Your task to perform on an android device: Open Google Image 0: 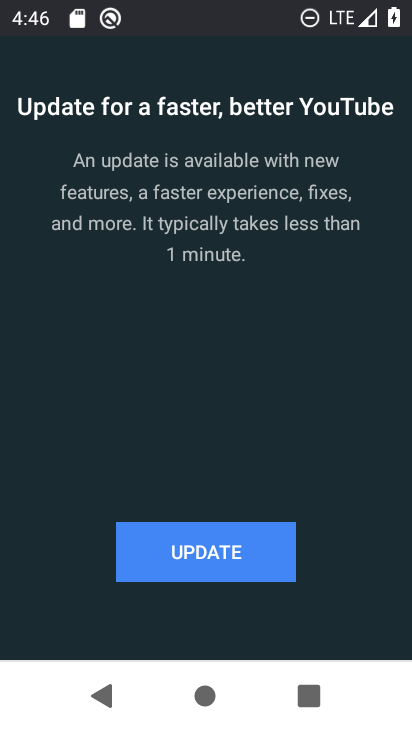
Step 0: press home button
Your task to perform on an android device: Open Google Image 1: 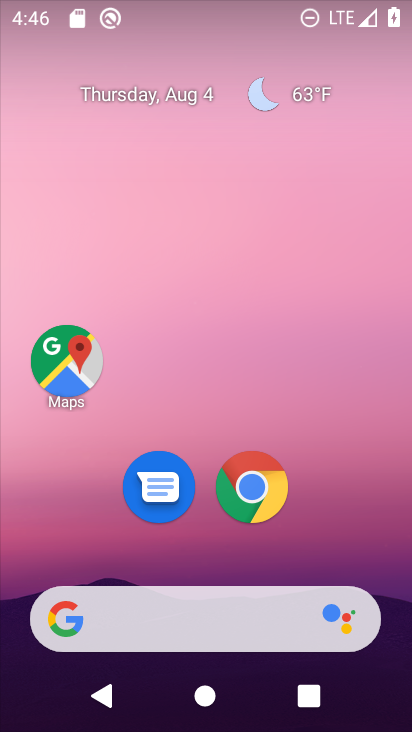
Step 1: drag from (72, 453) to (193, 0)
Your task to perform on an android device: Open Google Image 2: 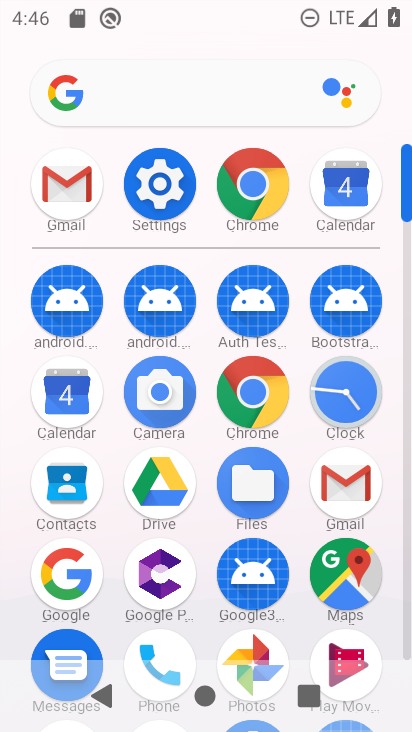
Step 2: click (73, 571)
Your task to perform on an android device: Open Google Image 3: 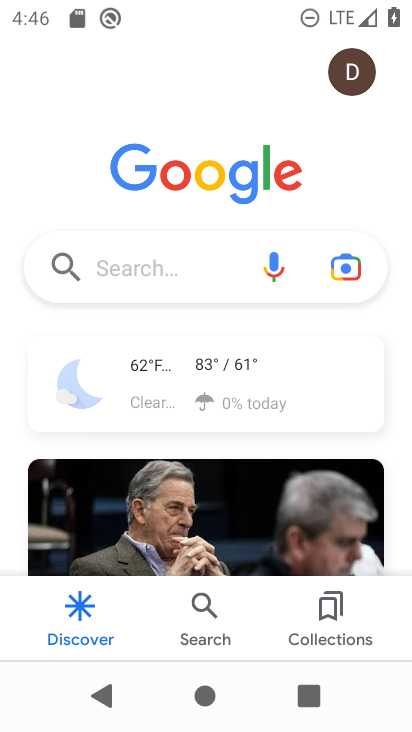
Step 3: task complete